Your task to perform on an android device: find snoozed emails in the gmail app Image 0: 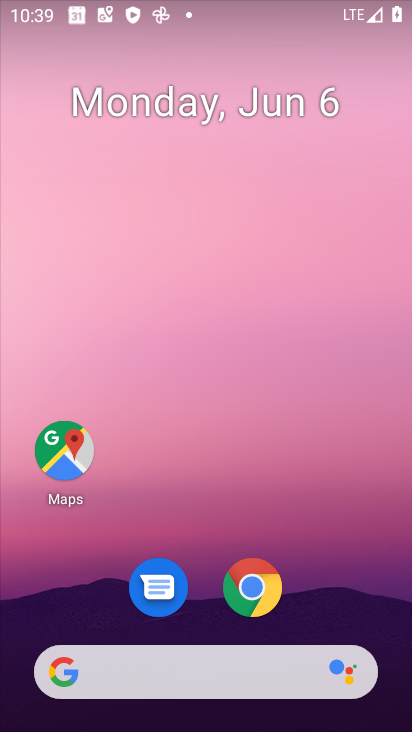
Step 0: drag from (216, 719) to (388, 146)
Your task to perform on an android device: find snoozed emails in the gmail app Image 1: 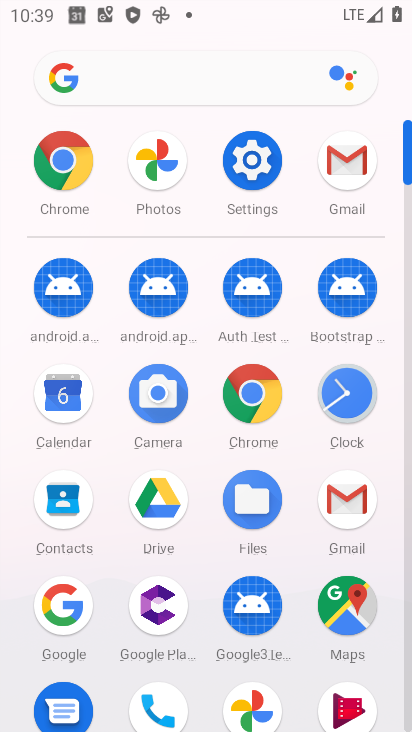
Step 1: click (345, 155)
Your task to perform on an android device: find snoozed emails in the gmail app Image 2: 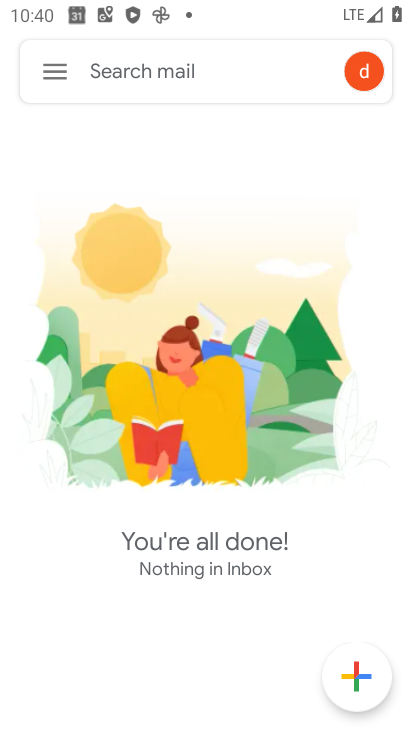
Step 2: click (52, 69)
Your task to perform on an android device: find snoozed emails in the gmail app Image 3: 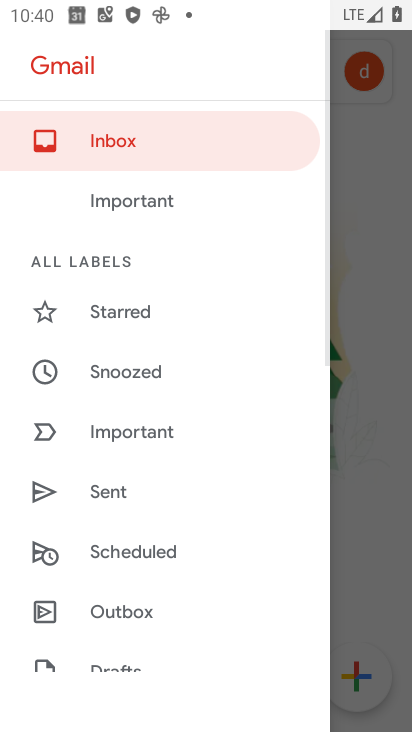
Step 3: click (175, 378)
Your task to perform on an android device: find snoozed emails in the gmail app Image 4: 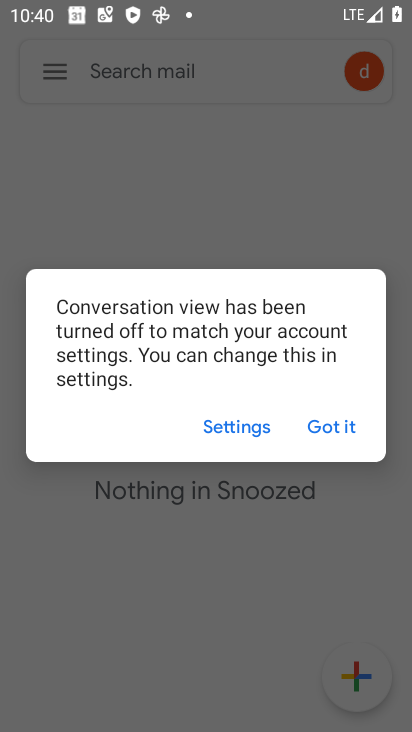
Step 4: task complete